Your task to perform on an android device: Clear the cart on newegg.com. Search for razer naga on newegg.com, select the first entry, add it to the cart, then select checkout. Image 0: 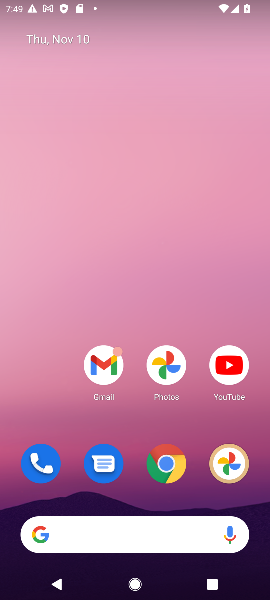
Step 0: click (165, 462)
Your task to perform on an android device: Clear the cart on newegg.com. Search for razer naga on newegg.com, select the first entry, add it to the cart, then select checkout. Image 1: 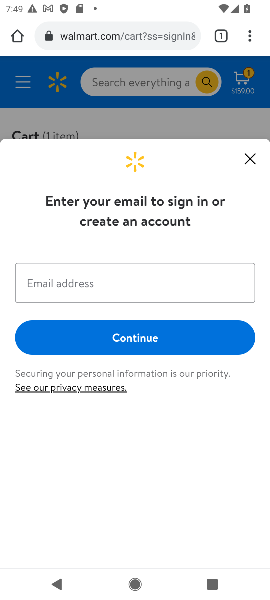
Step 1: click (154, 28)
Your task to perform on an android device: Clear the cart on newegg.com. Search for razer naga on newegg.com, select the first entry, add it to the cart, then select checkout. Image 2: 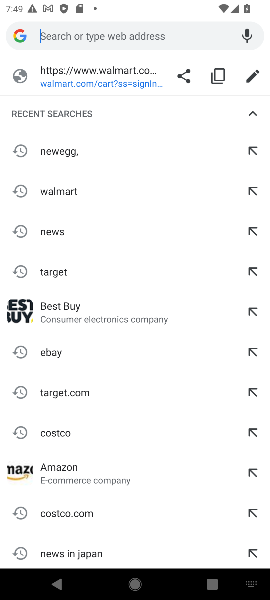
Step 2: click (55, 153)
Your task to perform on an android device: Clear the cart on newegg.com. Search for razer naga on newegg.com, select the first entry, add it to the cart, then select checkout. Image 3: 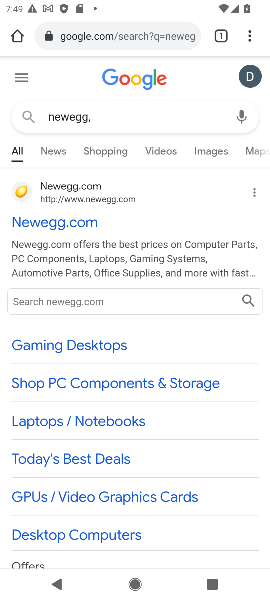
Step 3: click (63, 219)
Your task to perform on an android device: Clear the cart on newegg.com. Search for razer naga on newegg.com, select the first entry, add it to the cart, then select checkout. Image 4: 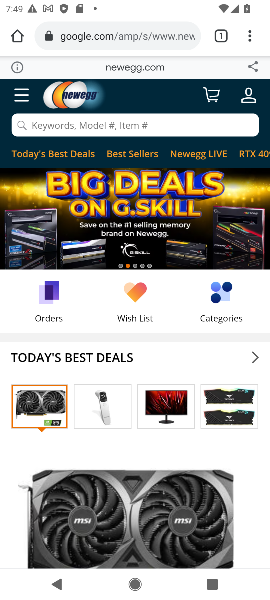
Step 4: click (191, 119)
Your task to perform on an android device: Clear the cart on newegg.com. Search for razer naga on newegg.com, select the first entry, add it to the cart, then select checkout. Image 5: 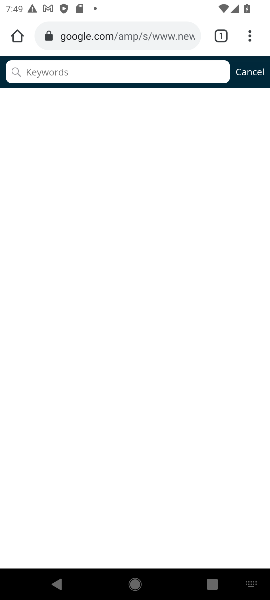
Step 5: type "razer naga"
Your task to perform on an android device: Clear the cart on newegg.com. Search for razer naga on newegg.com, select the first entry, add it to the cart, then select checkout. Image 6: 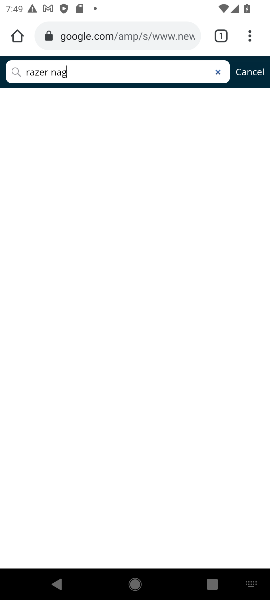
Step 6: press enter
Your task to perform on an android device: Clear the cart on newegg.com. Search for razer naga on newegg.com, select the first entry, add it to the cart, then select checkout. Image 7: 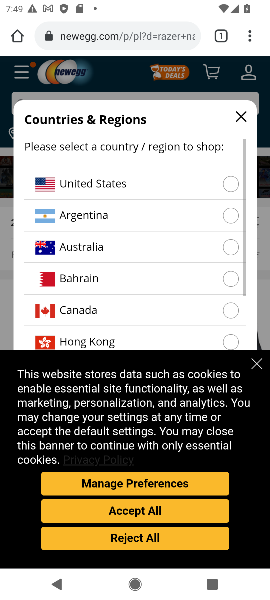
Step 7: click (243, 116)
Your task to perform on an android device: Clear the cart on newegg.com. Search for razer naga on newegg.com, select the first entry, add it to the cart, then select checkout. Image 8: 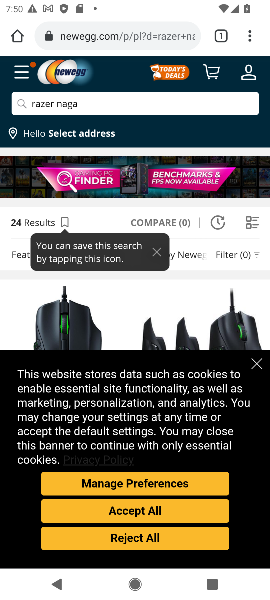
Step 8: click (259, 365)
Your task to perform on an android device: Clear the cart on newegg.com. Search for razer naga on newegg.com, select the first entry, add it to the cart, then select checkout. Image 9: 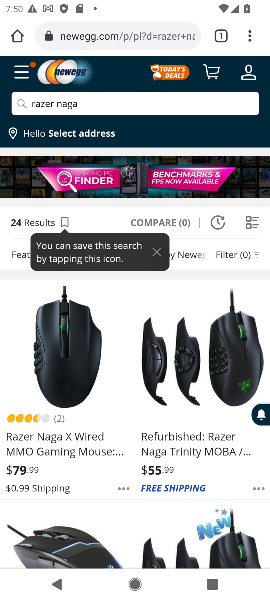
Step 9: drag from (90, 419) to (129, 348)
Your task to perform on an android device: Clear the cart on newegg.com. Search for razer naga on newegg.com, select the first entry, add it to the cart, then select checkout. Image 10: 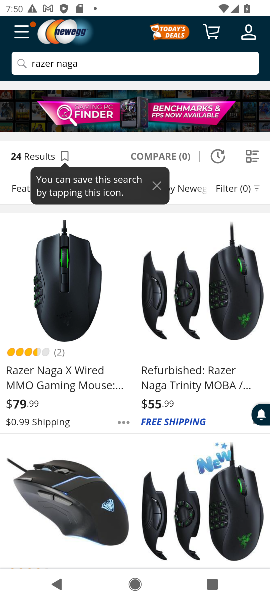
Step 10: click (56, 369)
Your task to perform on an android device: Clear the cart on newegg.com. Search for razer naga on newegg.com, select the first entry, add it to the cart, then select checkout. Image 11: 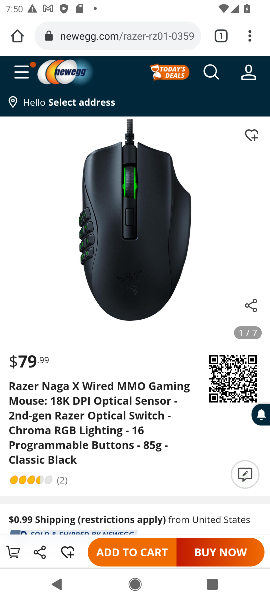
Step 11: click (137, 550)
Your task to perform on an android device: Clear the cart on newegg.com. Search for razer naga on newegg.com, select the first entry, add it to the cart, then select checkout. Image 12: 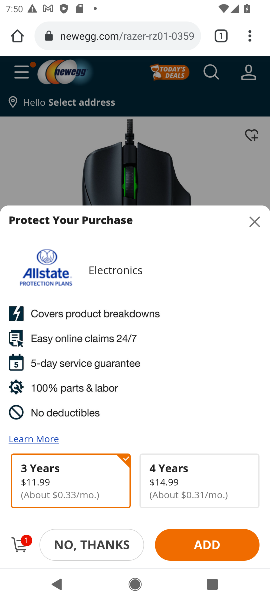
Step 12: click (23, 541)
Your task to perform on an android device: Clear the cart on newegg.com. Search for razer naga on newegg.com, select the first entry, add it to the cart, then select checkout. Image 13: 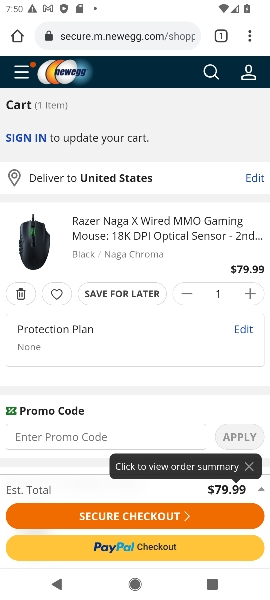
Step 13: click (146, 511)
Your task to perform on an android device: Clear the cart on newegg.com. Search for razer naga on newegg.com, select the first entry, add it to the cart, then select checkout. Image 14: 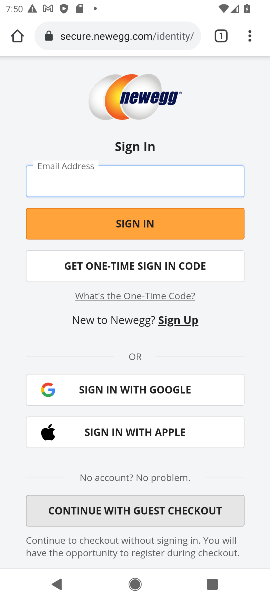
Step 14: task complete